Your task to perform on an android device: open device folders in google photos Image 0: 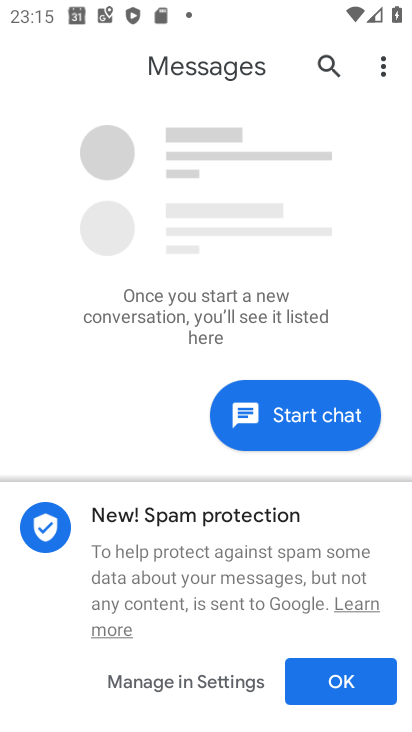
Step 0: press home button
Your task to perform on an android device: open device folders in google photos Image 1: 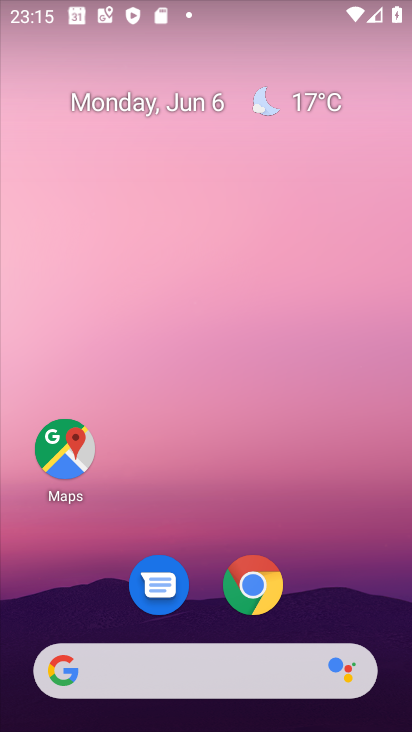
Step 1: drag from (210, 472) to (175, 44)
Your task to perform on an android device: open device folders in google photos Image 2: 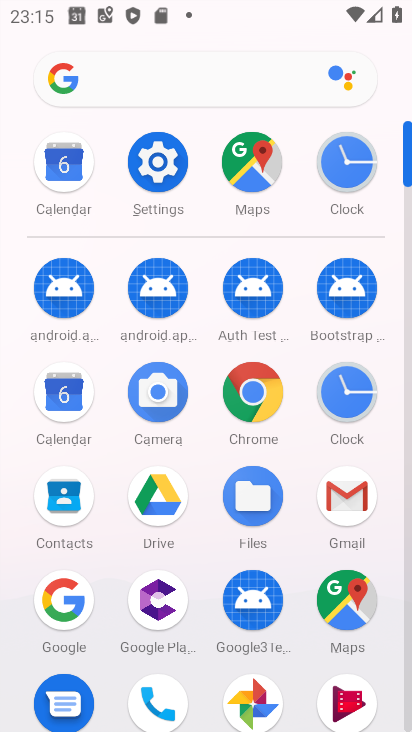
Step 2: click (261, 698)
Your task to perform on an android device: open device folders in google photos Image 3: 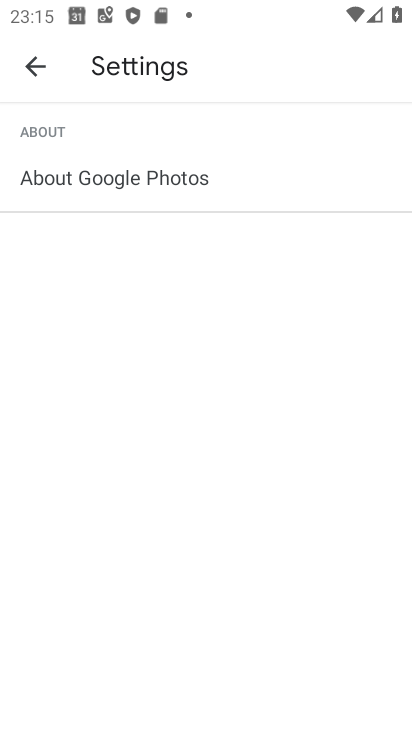
Step 3: click (39, 59)
Your task to perform on an android device: open device folders in google photos Image 4: 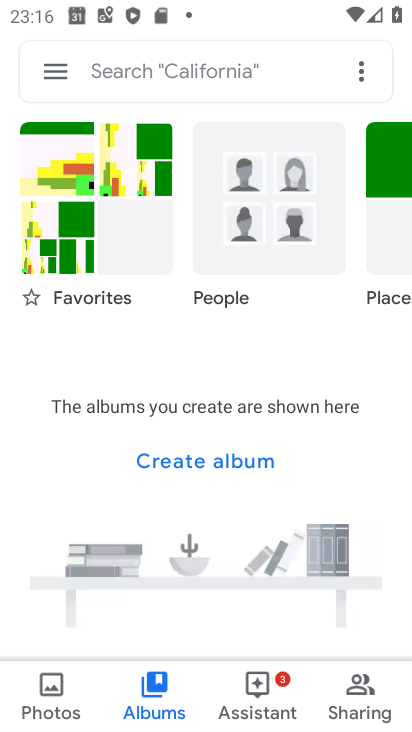
Step 4: click (42, 64)
Your task to perform on an android device: open device folders in google photos Image 5: 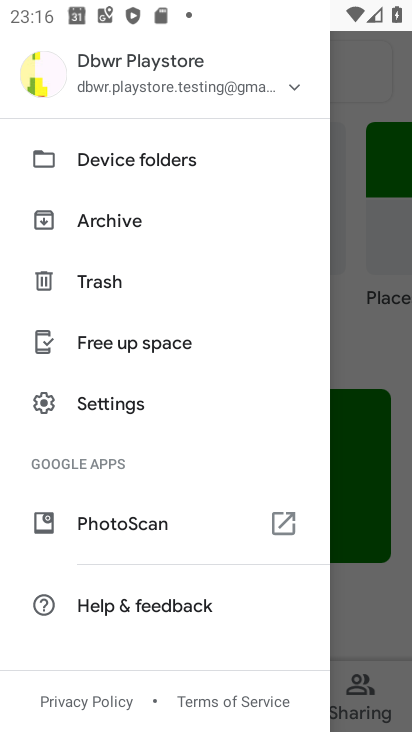
Step 5: click (99, 147)
Your task to perform on an android device: open device folders in google photos Image 6: 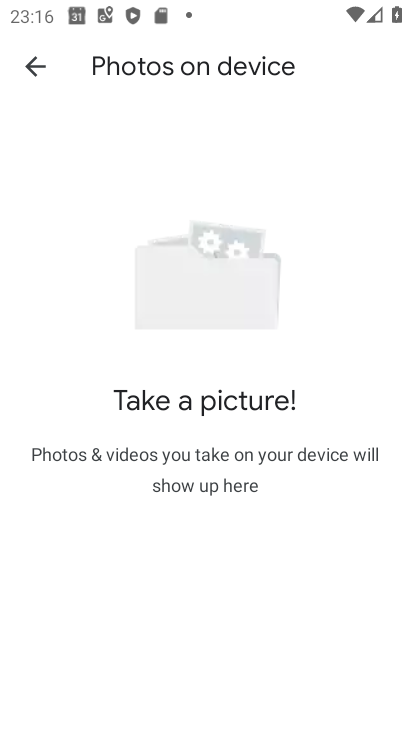
Step 6: task complete